Your task to perform on an android device: Go to internet settings Image 0: 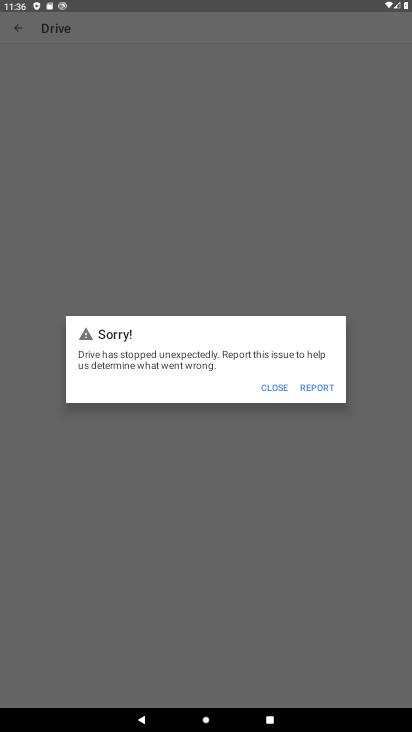
Step 0: press home button
Your task to perform on an android device: Go to internet settings Image 1: 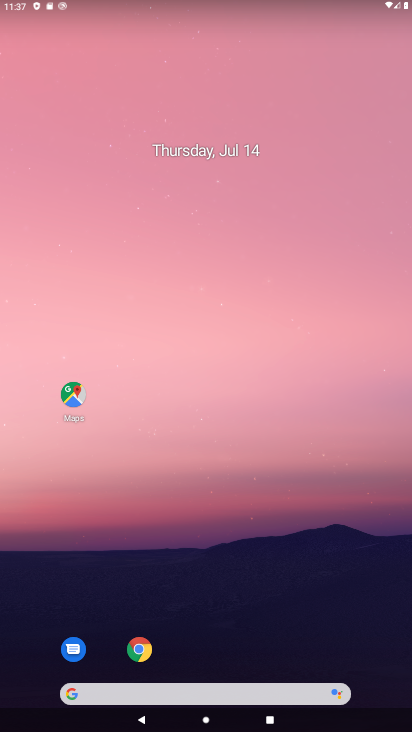
Step 1: drag from (193, 652) to (175, 121)
Your task to perform on an android device: Go to internet settings Image 2: 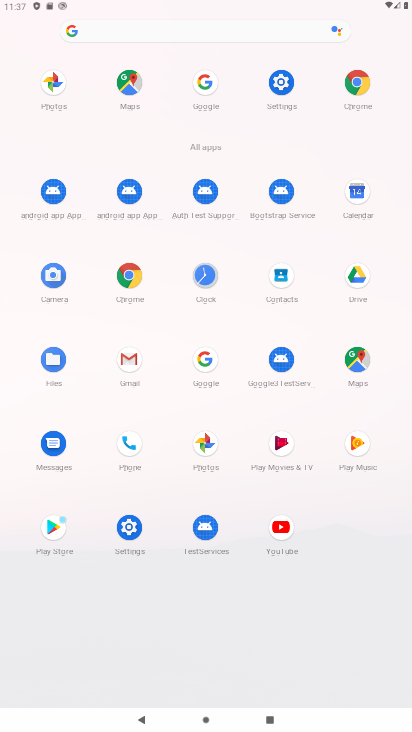
Step 2: click (279, 83)
Your task to perform on an android device: Go to internet settings Image 3: 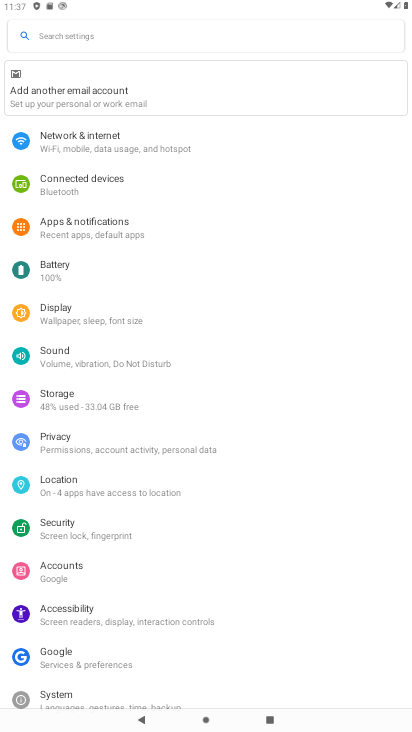
Step 3: click (120, 136)
Your task to perform on an android device: Go to internet settings Image 4: 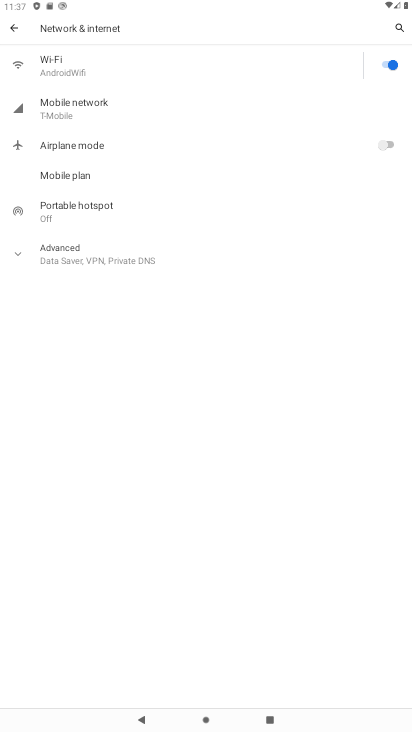
Step 4: click (104, 109)
Your task to perform on an android device: Go to internet settings Image 5: 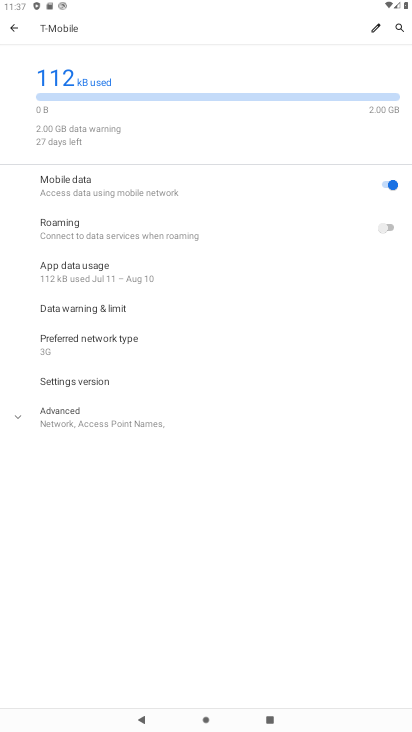
Step 5: task complete